Your task to perform on an android device: Open Google Maps Image 0: 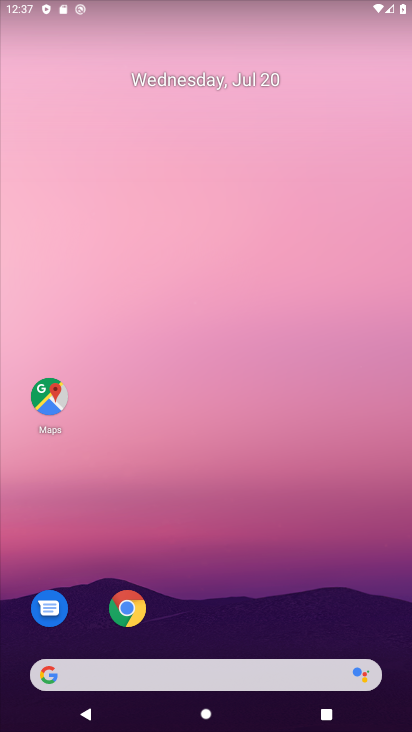
Step 0: click (57, 387)
Your task to perform on an android device: Open Google Maps Image 1: 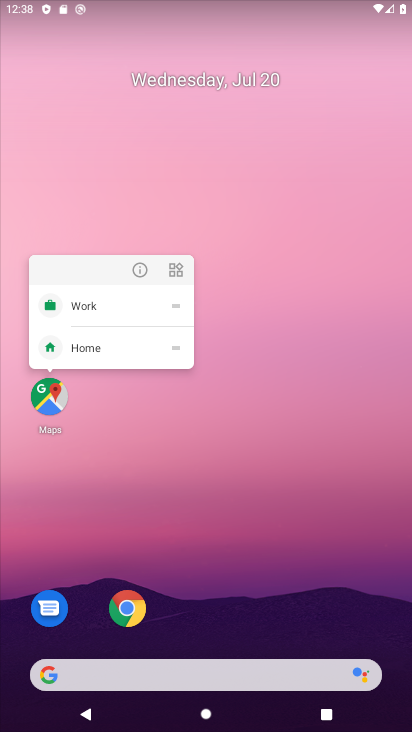
Step 1: click (52, 387)
Your task to perform on an android device: Open Google Maps Image 2: 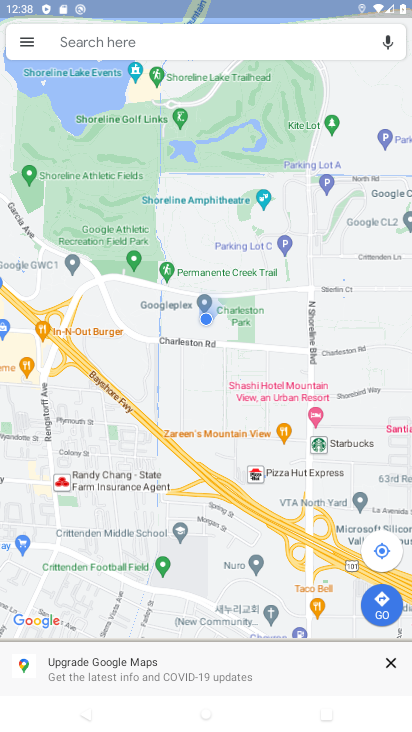
Step 2: task complete